Your task to perform on an android device: set default search engine in the chrome app Image 0: 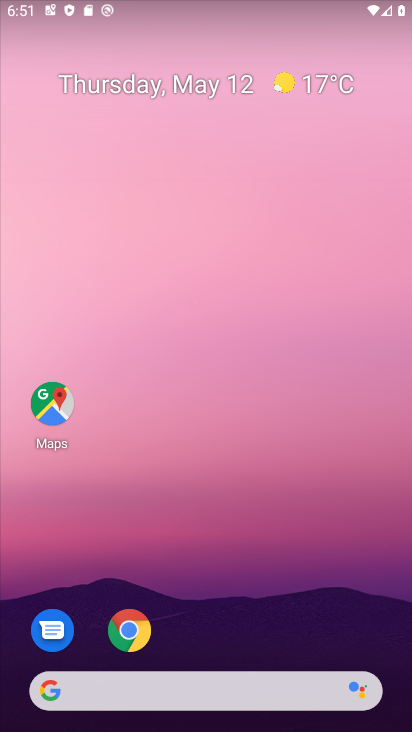
Step 0: drag from (373, 648) to (302, 142)
Your task to perform on an android device: set default search engine in the chrome app Image 1: 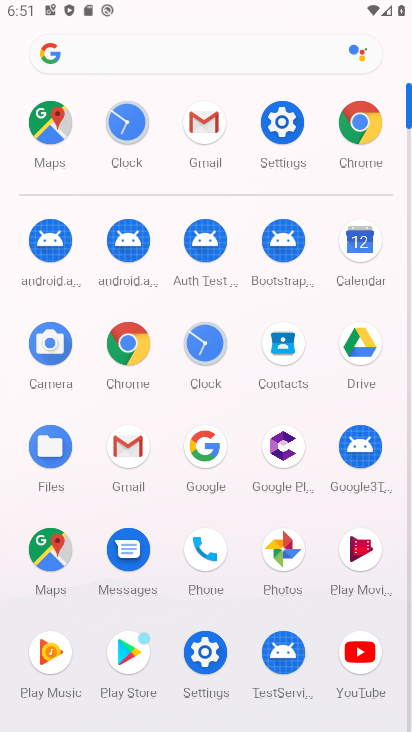
Step 1: click (137, 347)
Your task to perform on an android device: set default search engine in the chrome app Image 2: 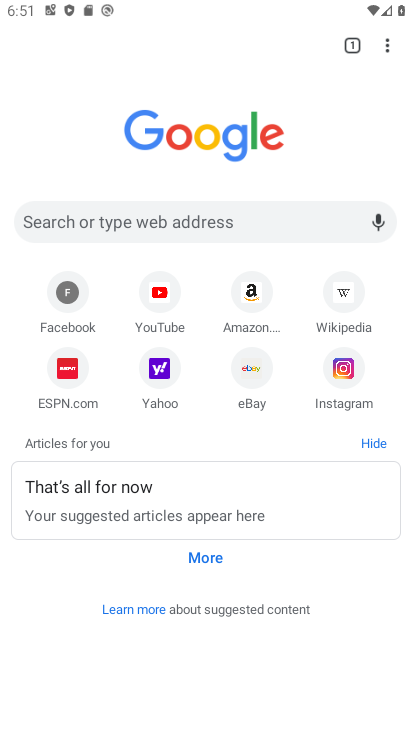
Step 2: click (383, 48)
Your task to perform on an android device: set default search engine in the chrome app Image 3: 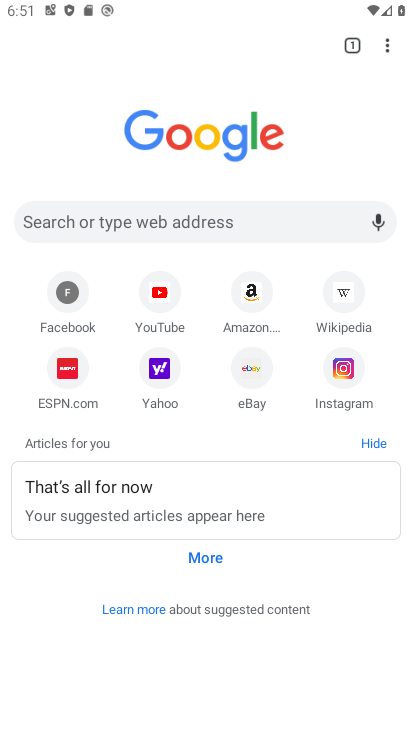
Step 3: click (390, 39)
Your task to perform on an android device: set default search engine in the chrome app Image 4: 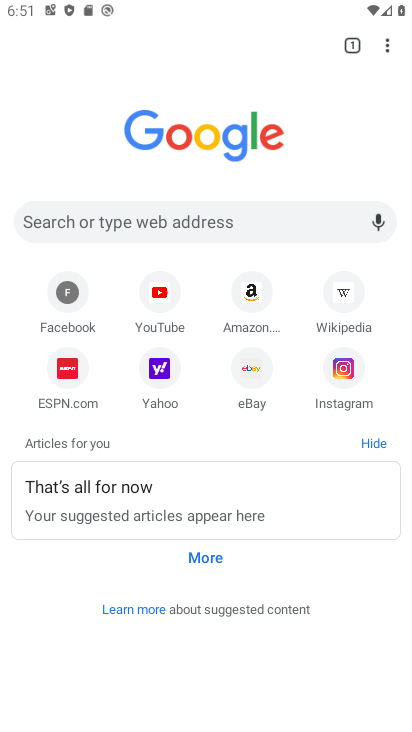
Step 4: click (388, 45)
Your task to perform on an android device: set default search engine in the chrome app Image 5: 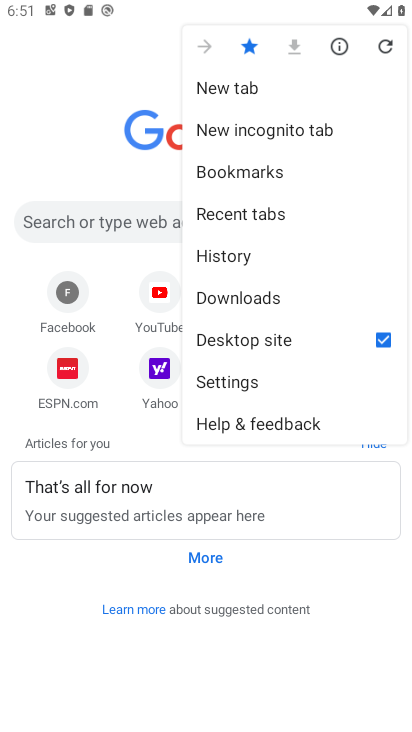
Step 5: click (223, 386)
Your task to perform on an android device: set default search engine in the chrome app Image 6: 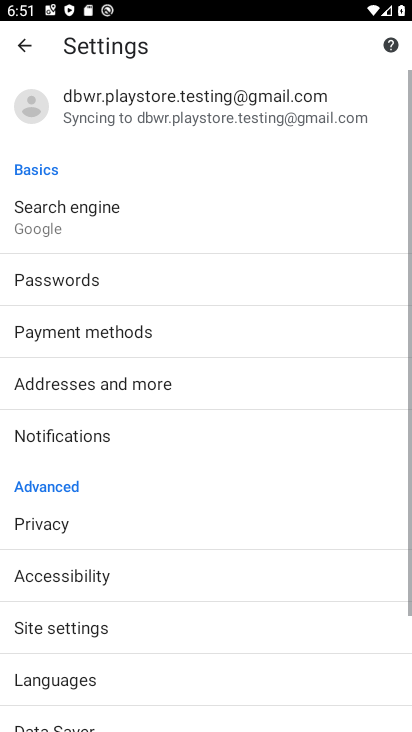
Step 6: click (169, 240)
Your task to perform on an android device: set default search engine in the chrome app Image 7: 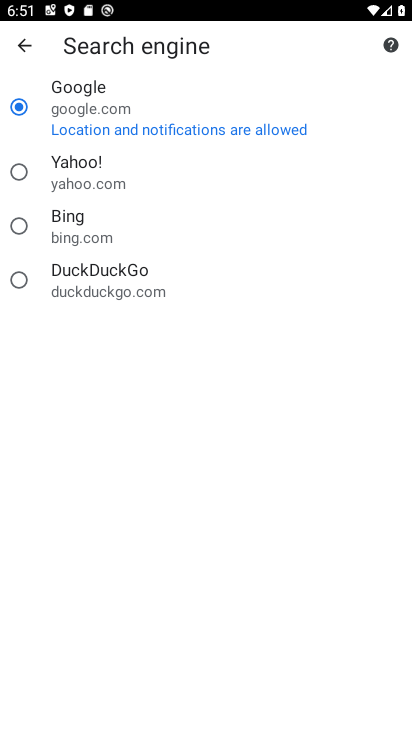
Step 7: click (163, 210)
Your task to perform on an android device: set default search engine in the chrome app Image 8: 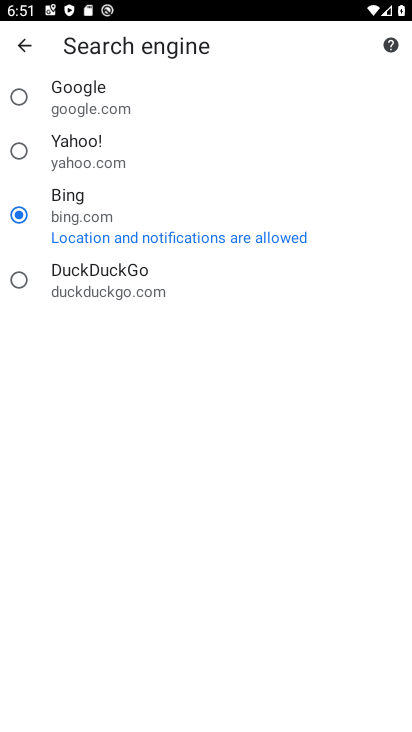
Step 8: task complete